Your task to perform on an android device: Play the last video I watched on Youtube Image 0: 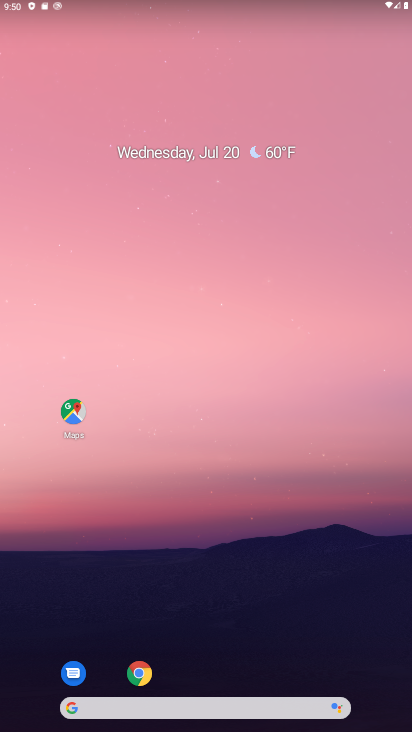
Step 0: drag from (223, 658) to (226, 29)
Your task to perform on an android device: Play the last video I watched on Youtube Image 1: 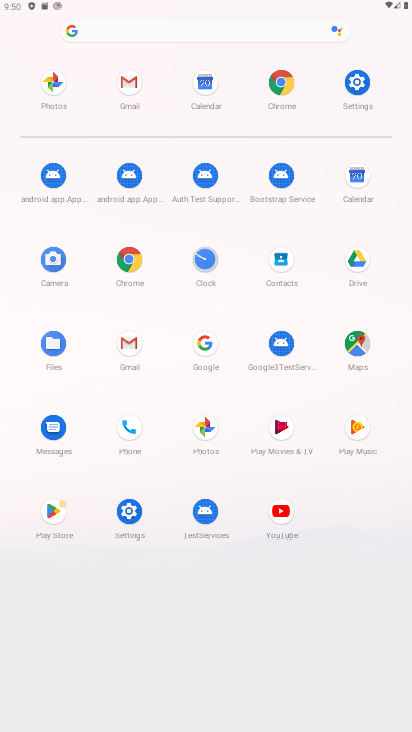
Step 1: click (286, 517)
Your task to perform on an android device: Play the last video I watched on Youtube Image 2: 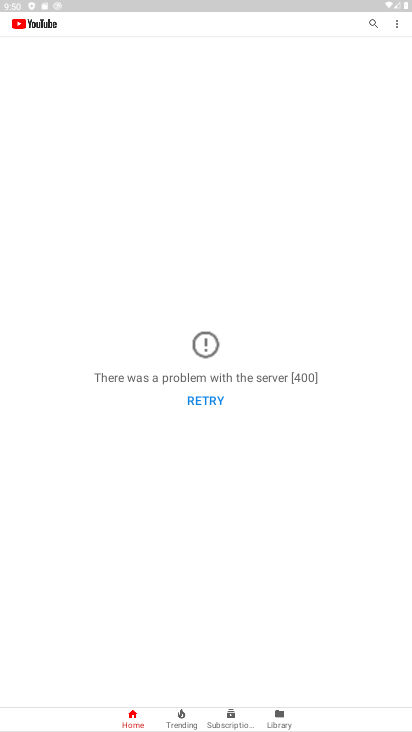
Step 2: click (199, 397)
Your task to perform on an android device: Play the last video I watched on Youtube Image 3: 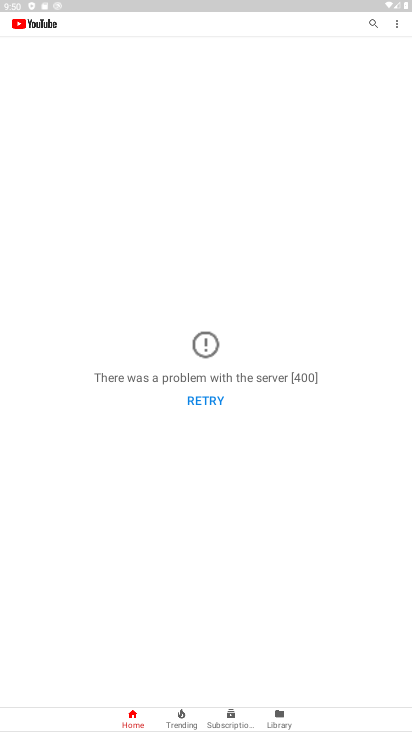
Step 3: click (199, 399)
Your task to perform on an android device: Play the last video I watched on Youtube Image 4: 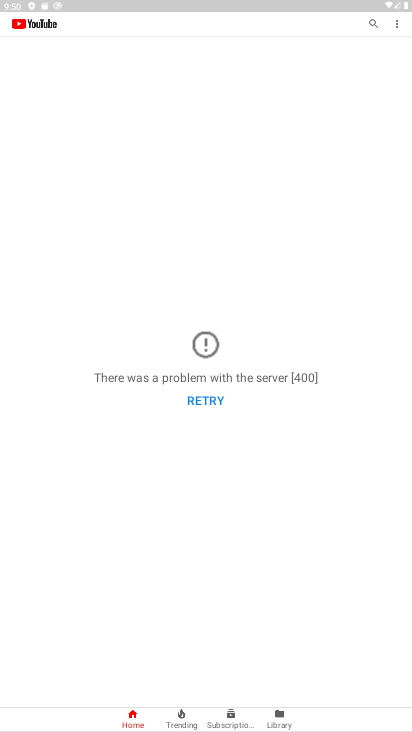
Step 4: click (199, 399)
Your task to perform on an android device: Play the last video I watched on Youtube Image 5: 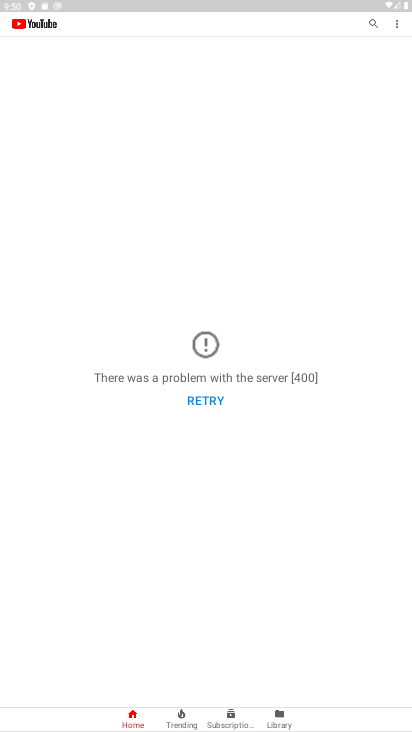
Step 5: click (201, 408)
Your task to perform on an android device: Play the last video I watched on Youtube Image 6: 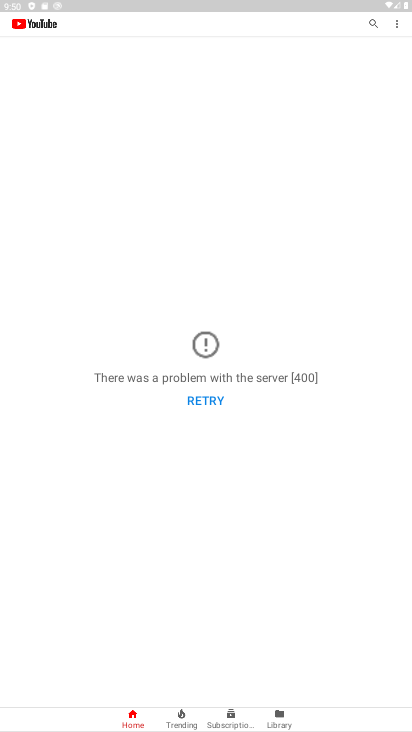
Step 6: click (197, 401)
Your task to perform on an android device: Play the last video I watched on Youtube Image 7: 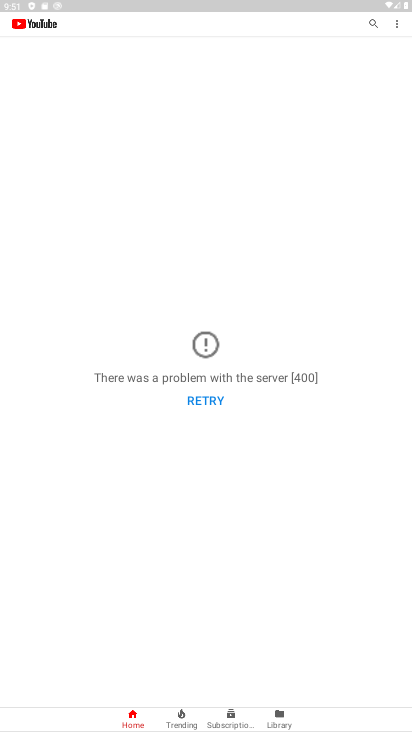
Step 7: click (201, 396)
Your task to perform on an android device: Play the last video I watched on Youtube Image 8: 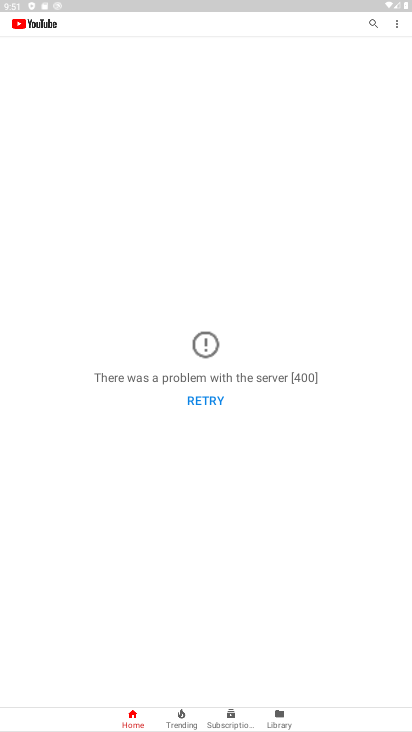
Step 8: task complete